Your task to perform on an android device: choose inbox layout in the gmail app Image 0: 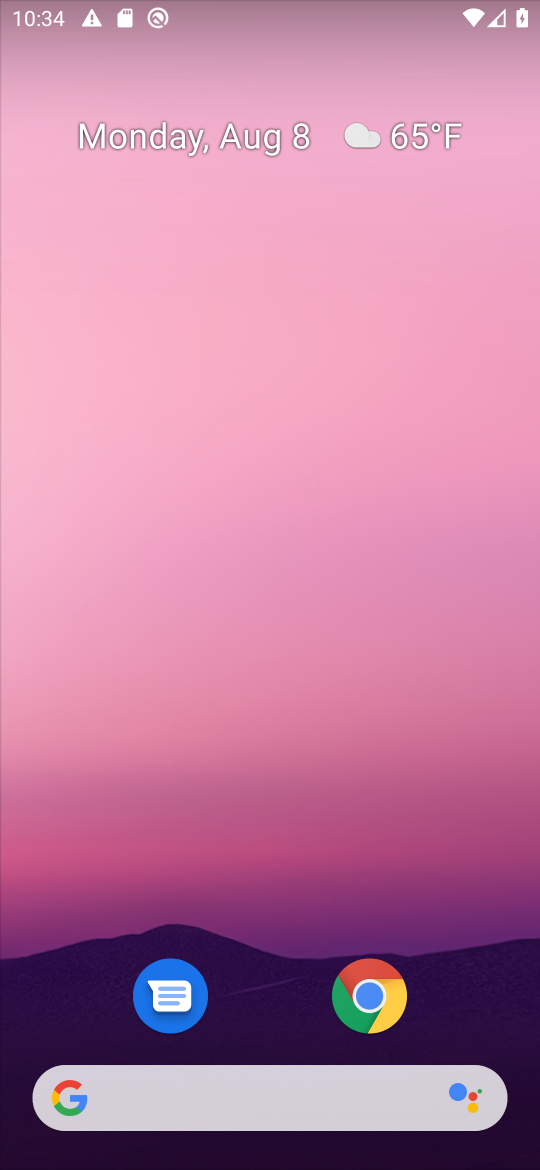
Step 0: drag from (262, 1020) to (306, 14)
Your task to perform on an android device: choose inbox layout in the gmail app Image 1: 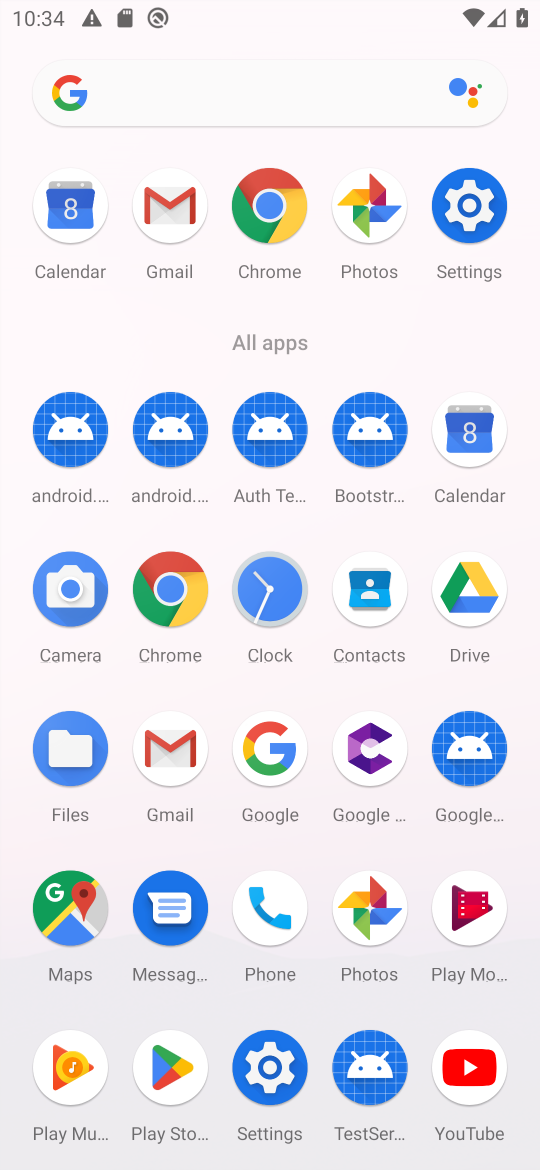
Step 1: click (170, 202)
Your task to perform on an android device: choose inbox layout in the gmail app Image 2: 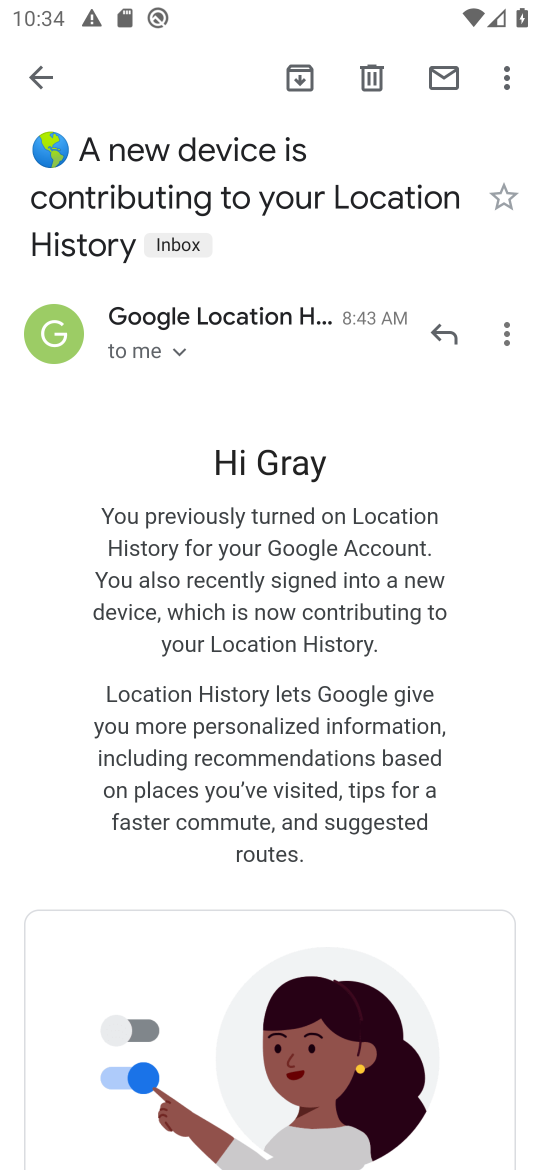
Step 2: click (27, 84)
Your task to perform on an android device: choose inbox layout in the gmail app Image 3: 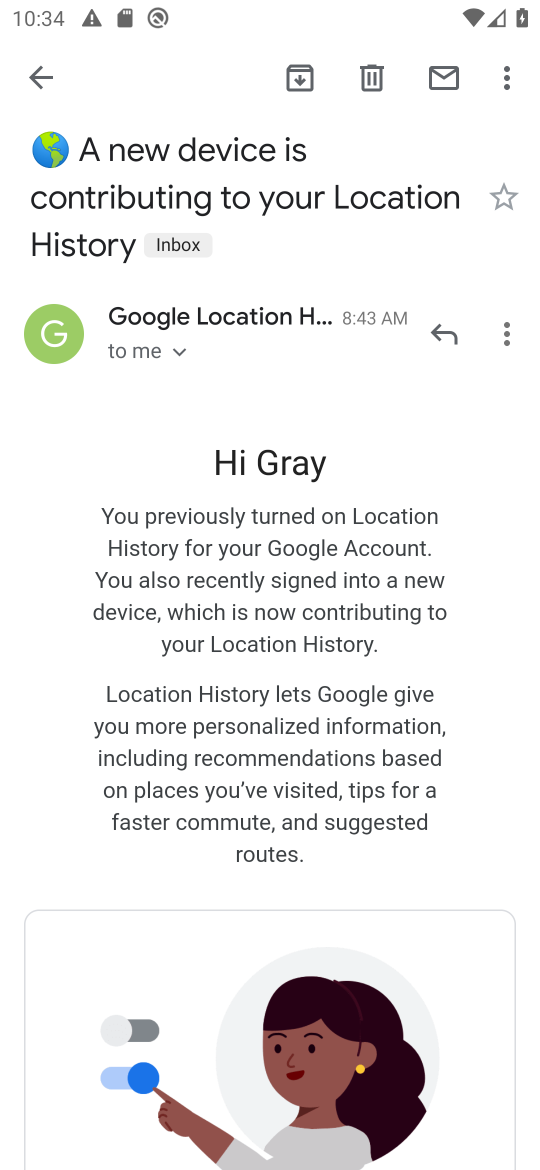
Step 3: click (41, 72)
Your task to perform on an android device: choose inbox layout in the gmail app Image 4: 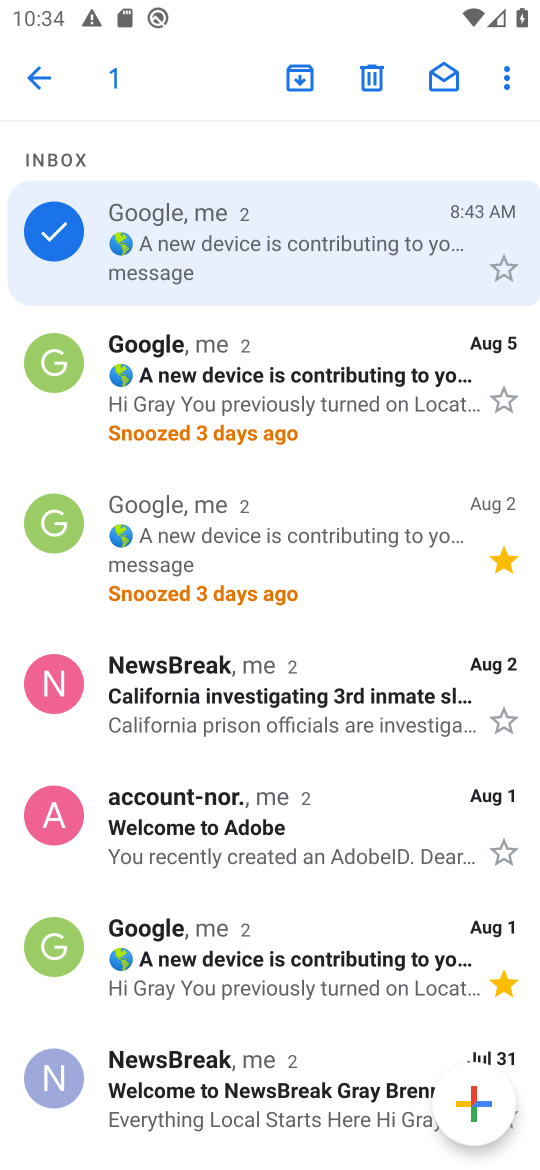
Step 4: click (26, 77)
Your task to perform on an android device: choose inbox layout in the gmail app Image 5: 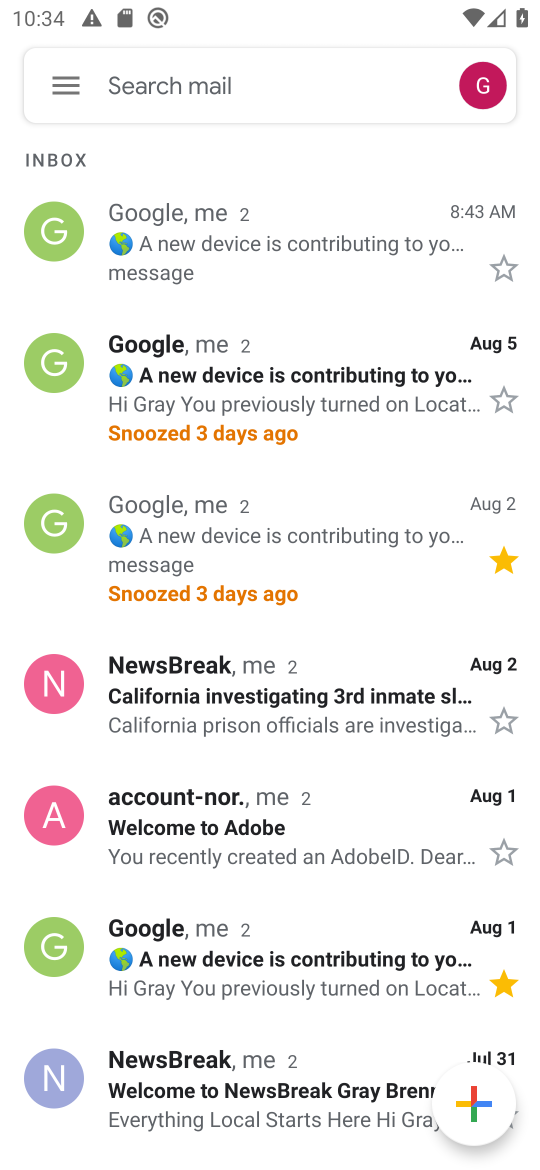
Step 5: click (58, 93)
Your task to perform on an android device: choose inbox layout in the gmail app Image 6: 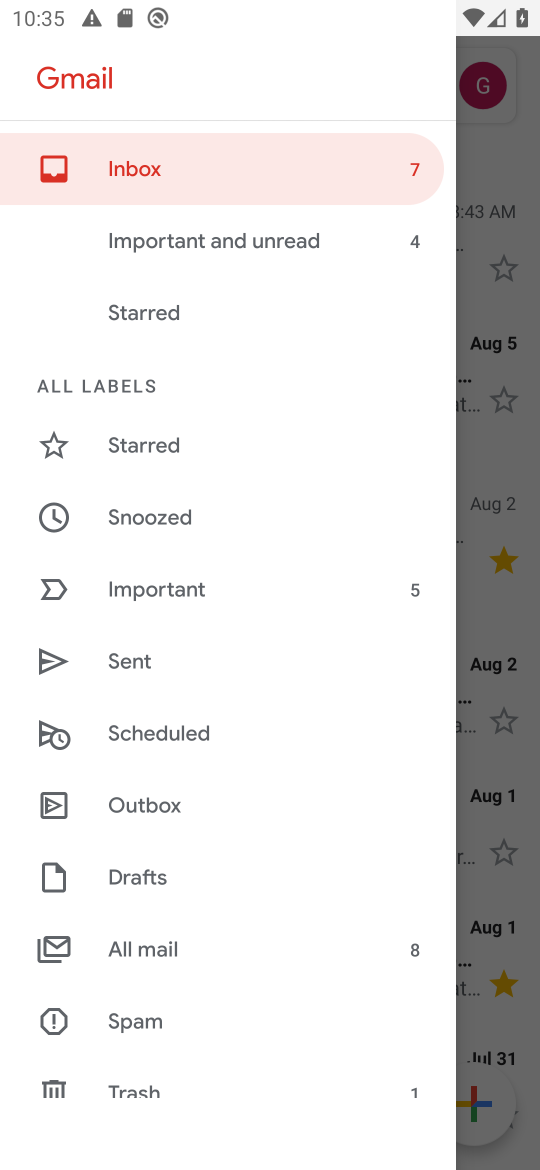
Step 6: drag from (290, 943) to (404, 185)
Your task to perform on an android device: choose inbox layout in the gmail app Image 7: 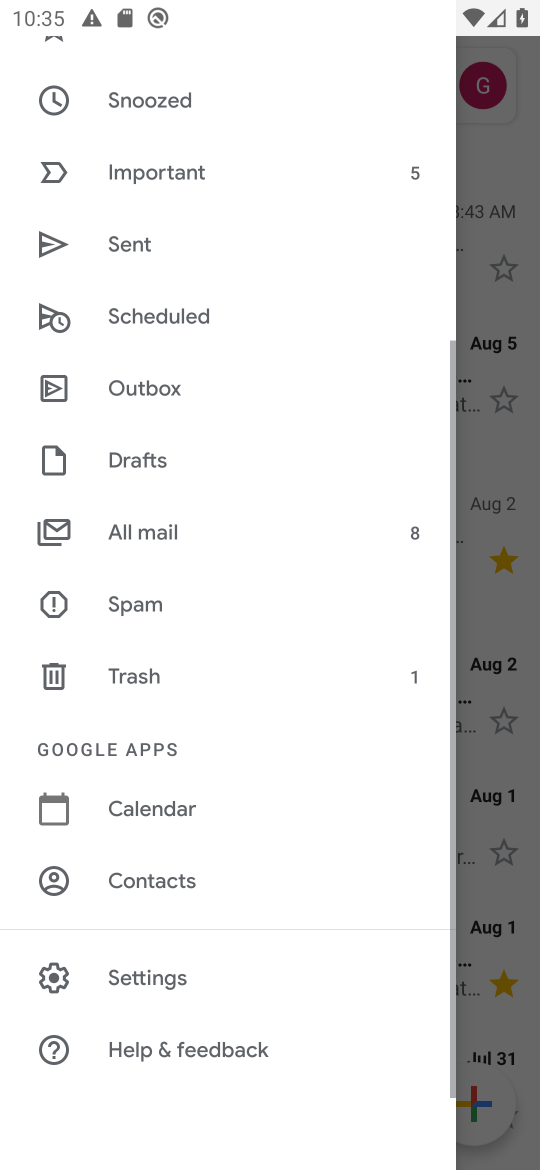
Step 7: click (160, 980)
Your task to perform on an android device: choose inbox layout in the gmail app Image 8: 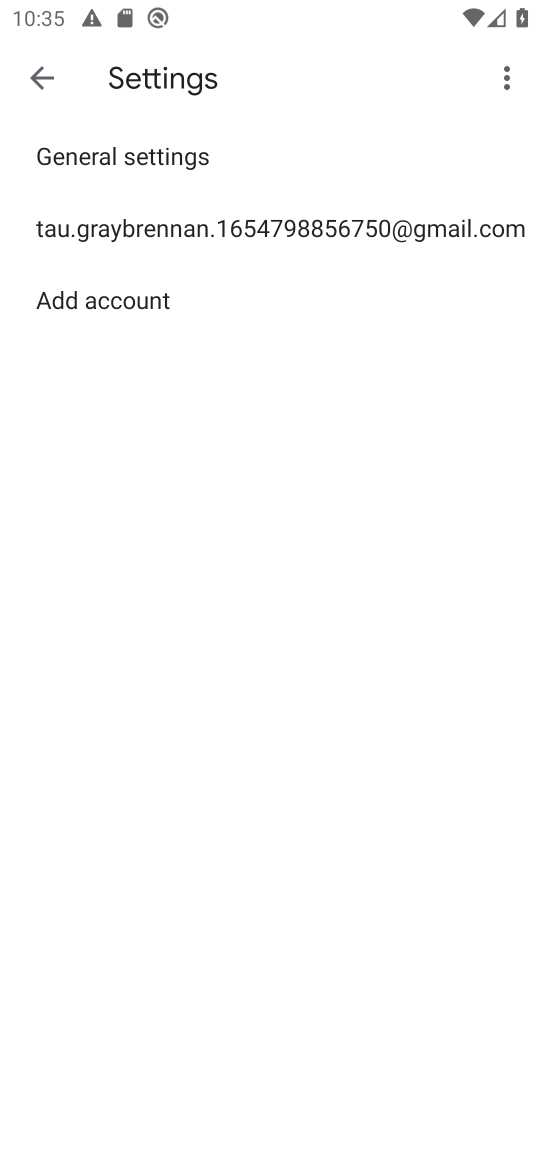
Step 8: click (272, 237)
Your task to perform on an android device: choose inbox layout in the gmail app Image 9: 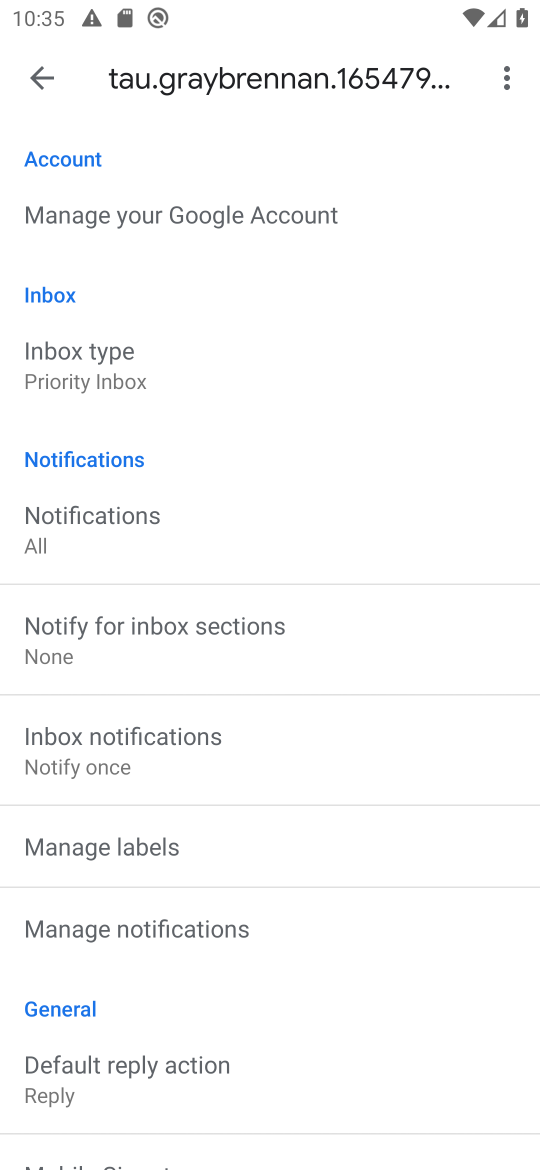
Step 9: click (121, 359)
Your task to perform on an android device: choose inbox layout in the gmail app Image 10: 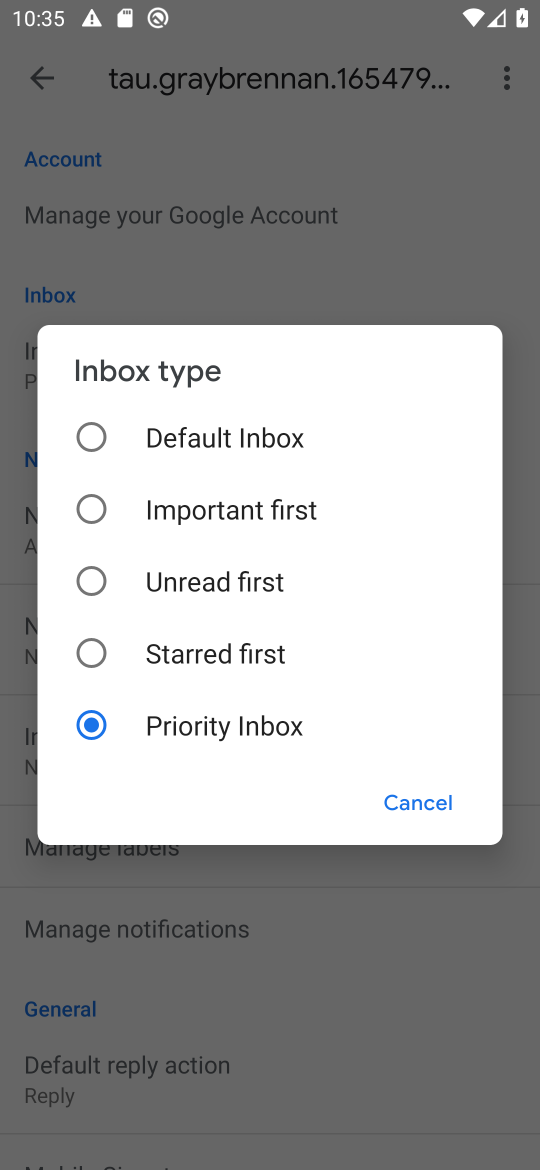
Step 10: click (96, 425)
Your task to perform on an android device: choose inbox layout in the gmail app Image 11: 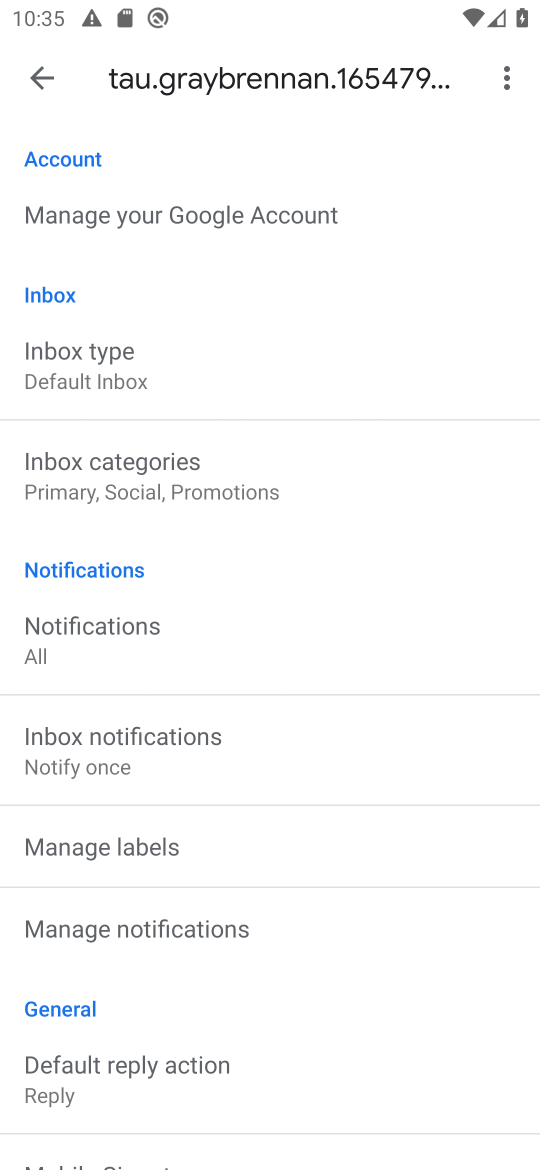
Step 11: task complete